Your task to perform on an android device: check google app version Image 0: 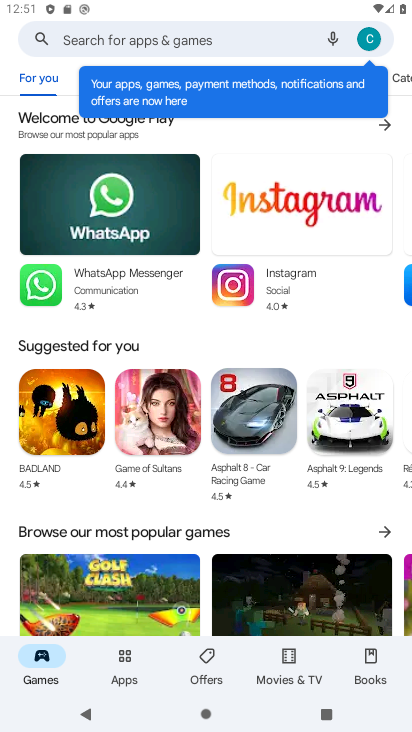
Step 0: press back button
Your task to perform on an android device: check google app version Image 1: 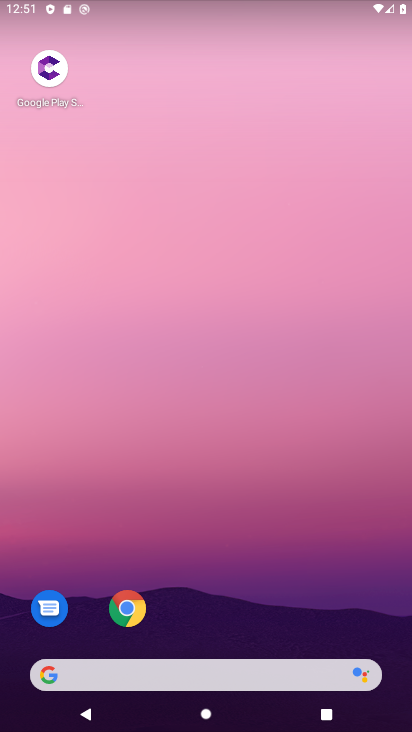
Step 1: drag from (223, 667) to (306, 12)
Your task to perform on an android device: check google app version Image 2: 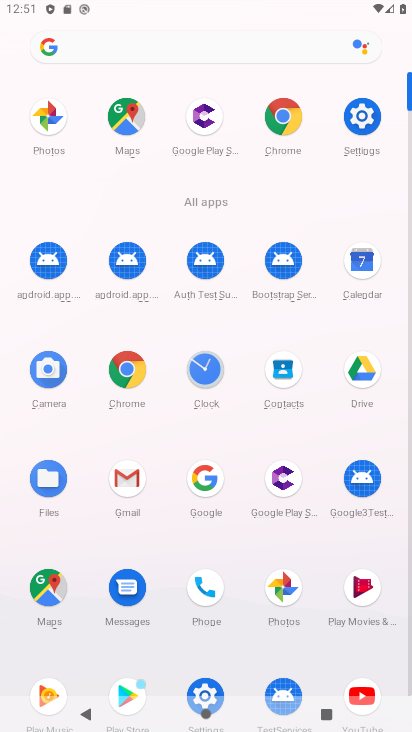
Step 2: click (205, 487)
Your task to perform on an android device: check google app version Image 3: 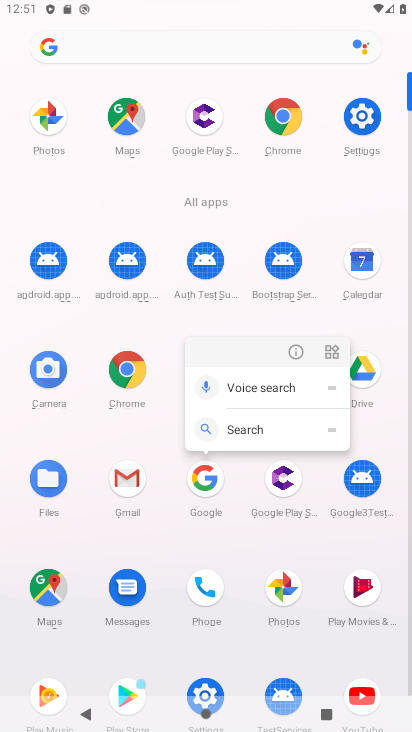
Step 3: click (297, 350)
Your task to perform on an android device: check google app version Image 4: 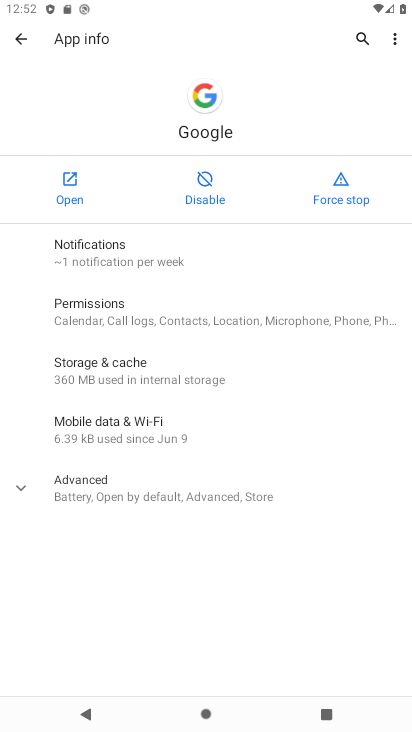
Step 4: click (116, 486)
Your task to perform on an android device: check google app version Image 5: 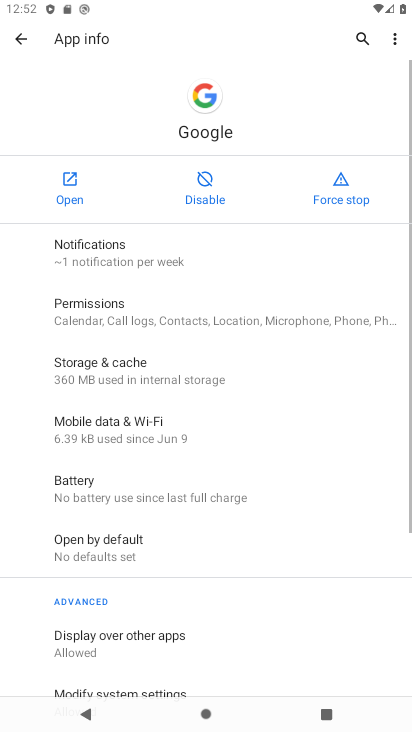
Step 5: drag from (109, 687) to (227, 59)
Your task to perform on an android device: check google app version Image 6: 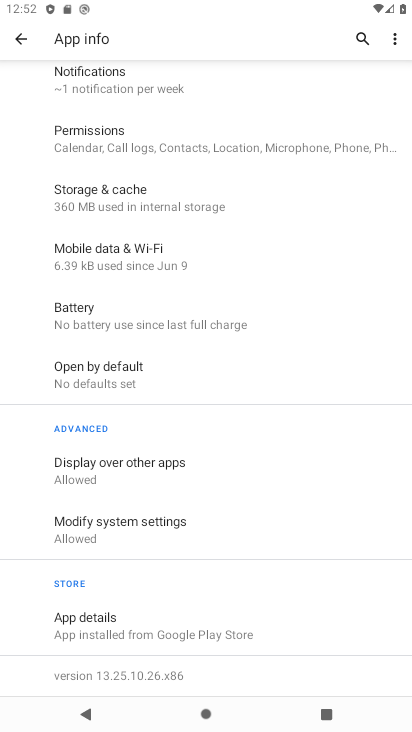
Step 6: click (116, 683)
Your task to perform on an android device: check google app version Image 7: 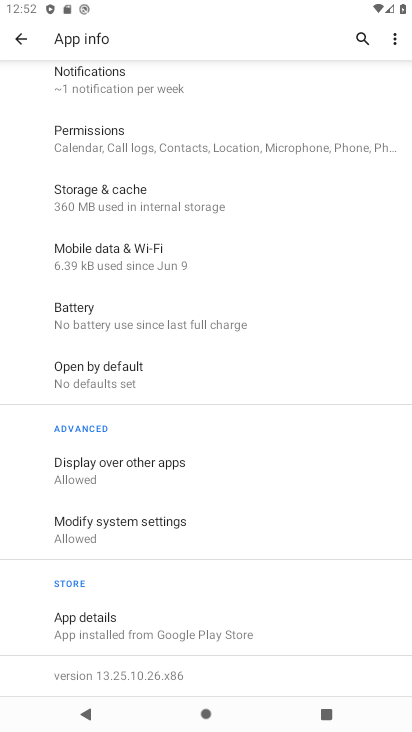
Step 7: task complete